Your task to perform on an android device: remove spam from my inbox in the gmail app Image 0: 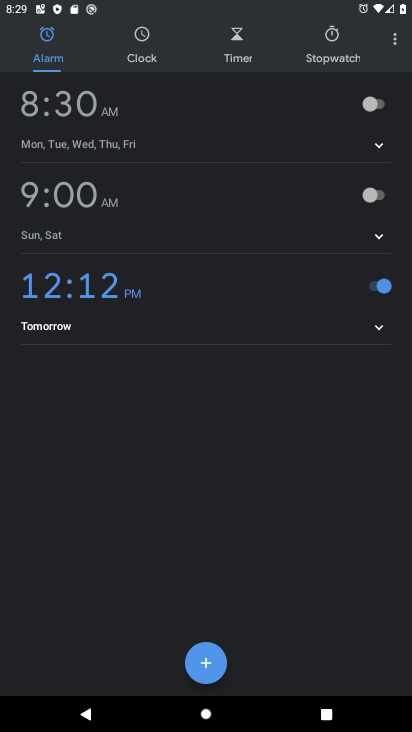
Step 0: press home button
Your task to perform on an android device: remove spam from my inbox in the gmail app Image 1: 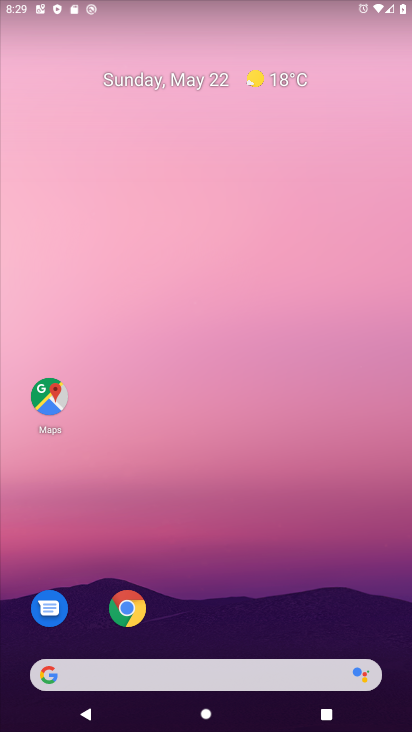
Step 1: drag from (239, 656) to (237, 7)
Your task to perform on an android device: remove spam from my inbox in the gmail app Image 2: 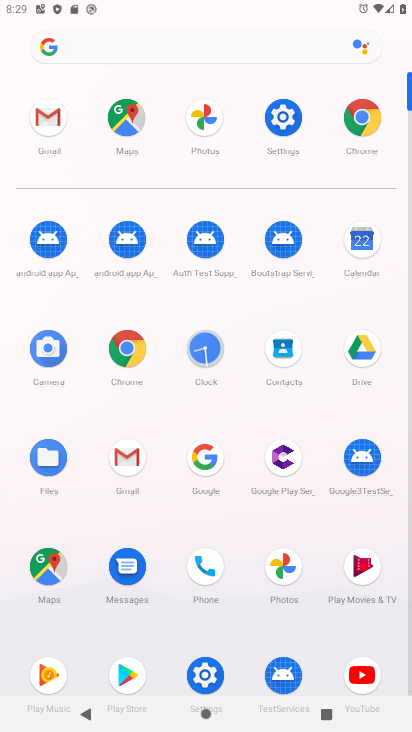
Step 2: click (132, 452)
Your task to perform on an android device: remove spam from my inbox in the gmail app Image 3: 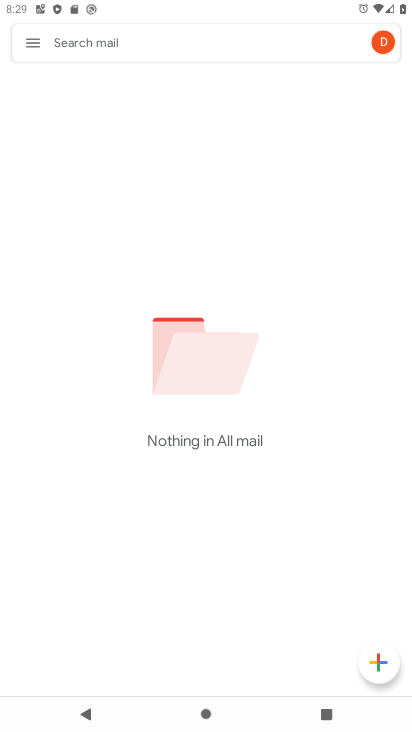
Step 3: press home button
Your task to perform on an android device: remove spam from my inbox in the gmail app Image 4: 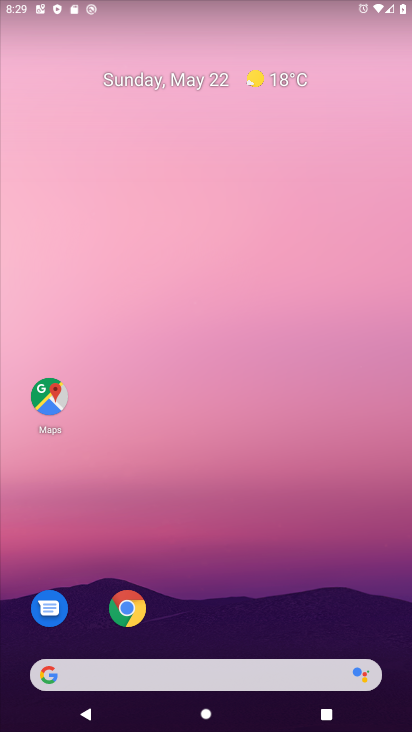
Step 4: drag from (252, 707) to (260, 55)
Your task to perform on an android device: remove spam from my inbox in the gmail app Image 5: 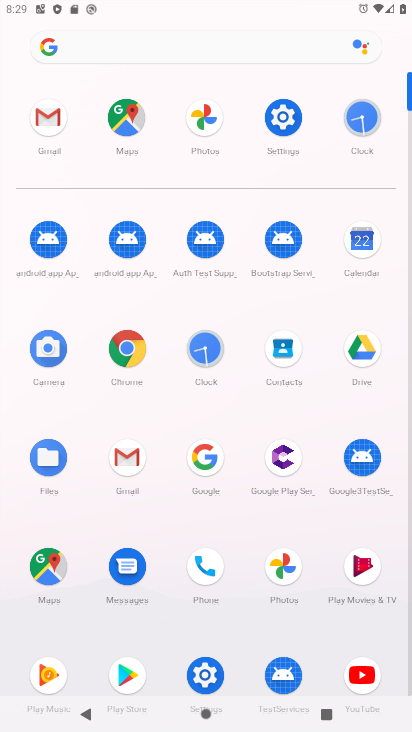
Step 5: click (121, 460)
Your task to perform on an android device: remove spam from my inbox in the gmail app Image 6: 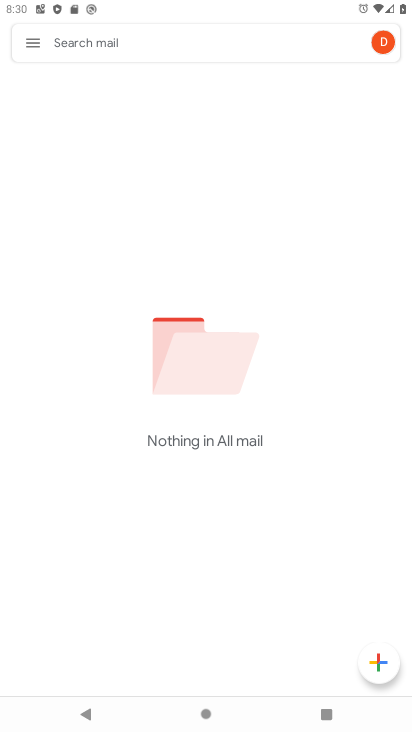
Step 6: click (34, 38)
Your task to perform on an android device: remove spam from my inbox in the gmail app Image 7: 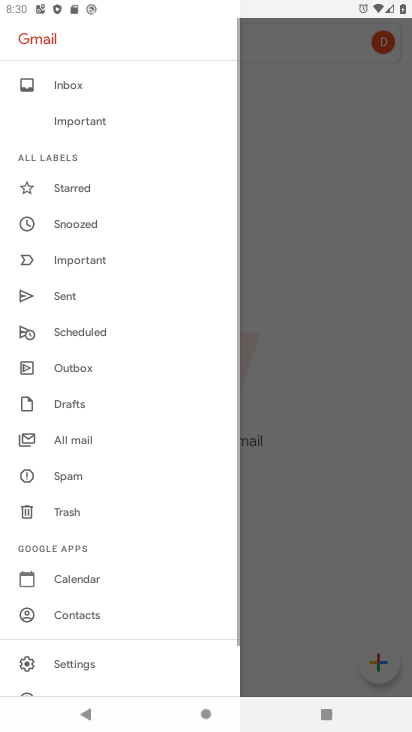
Step 7: drag from (90, 123) to (98, 512)
Your task to perform on an android device: remove spam from my inbox in the gmail app Image 8: 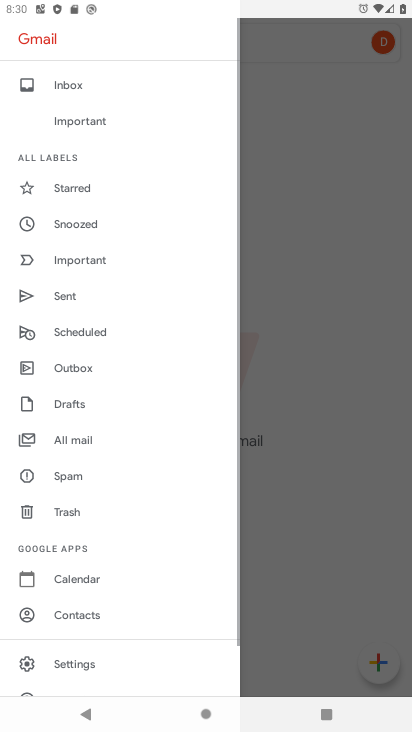
Step 8: click (70, 84)
Your task to perform on an android device: remove spam from my inbox in the gmail app Image 9: 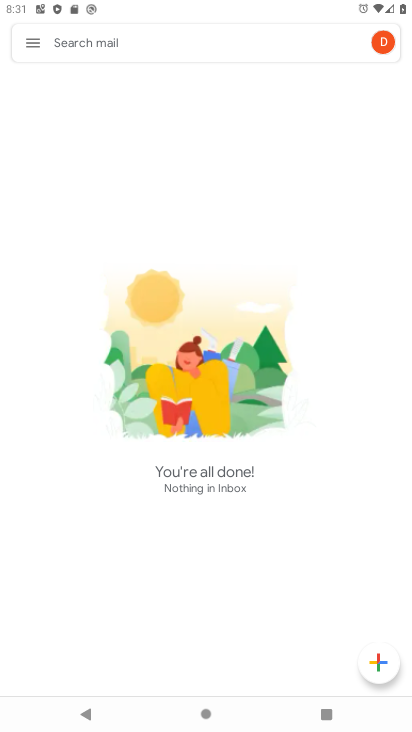
Step 9: task complete